Your task to perform on an android device: move an email to a new category in the gmail app Image 0: 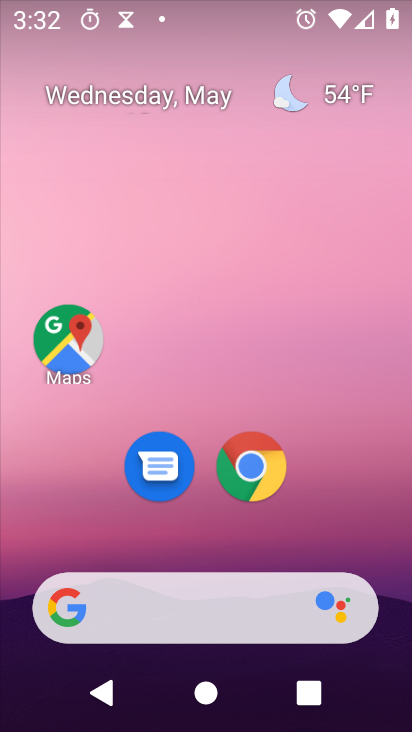
Step 0: drag from (355, 523) to (302, 74)
Your task to perform on an android device: move an email to a new category in the gmail app Image 1: 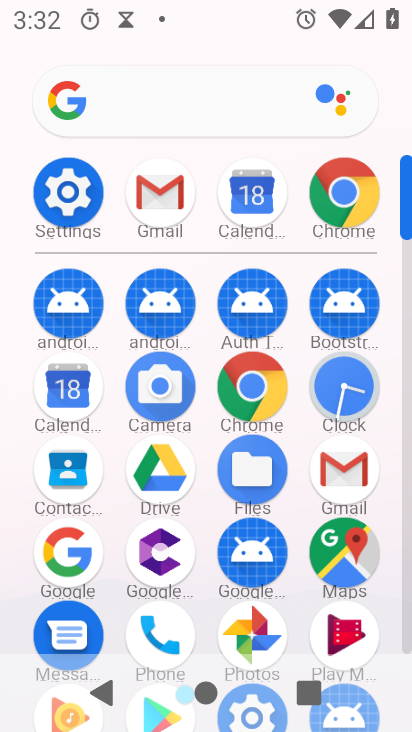
Step 1: click (165, 184)
Your task to perform on an android device: move an email to a new category in the gmail app Image 2: 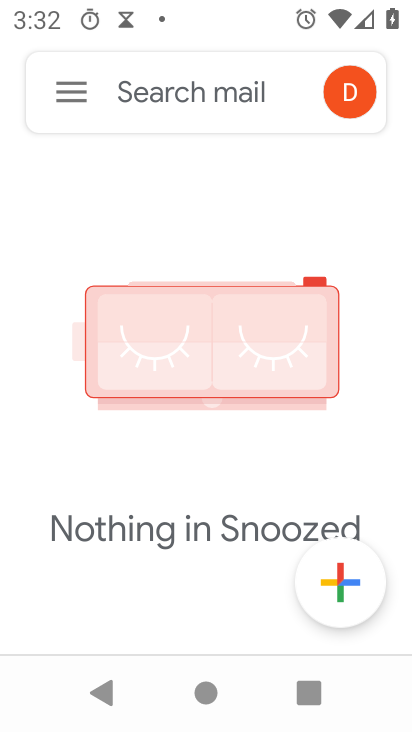
Step 2: click (51, 85)
Your task to perform on an android device: move an email to a new category in the gmail app Image 3: 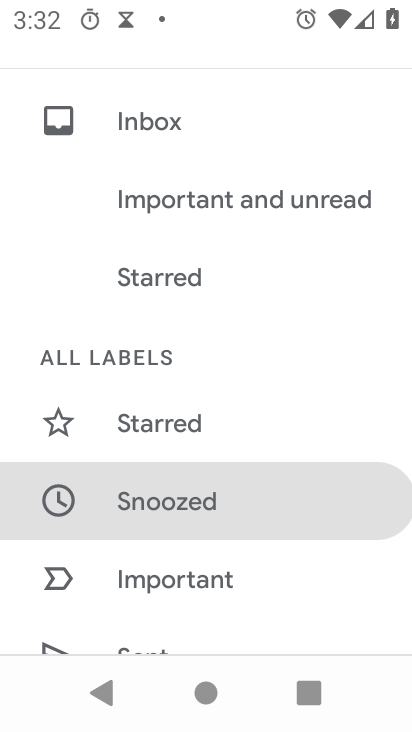
Step 3: click (212, 111)
Your task to perform on an android device: move an email to a new category in the gmail app Image 4: 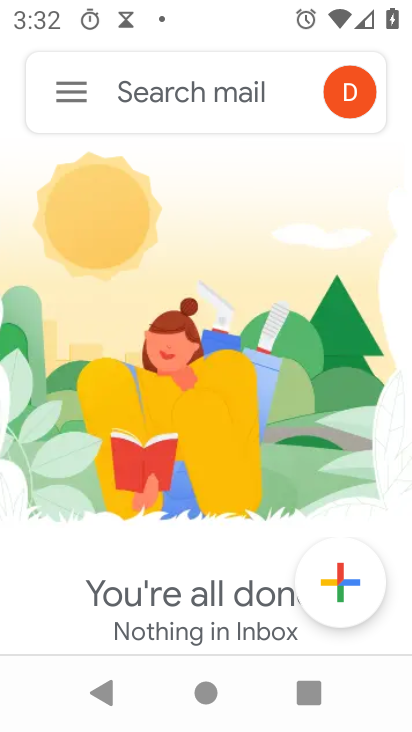
Step 4: task complete